Your task to perform on an android device: What's the weather going to be this weekend? Image 0: 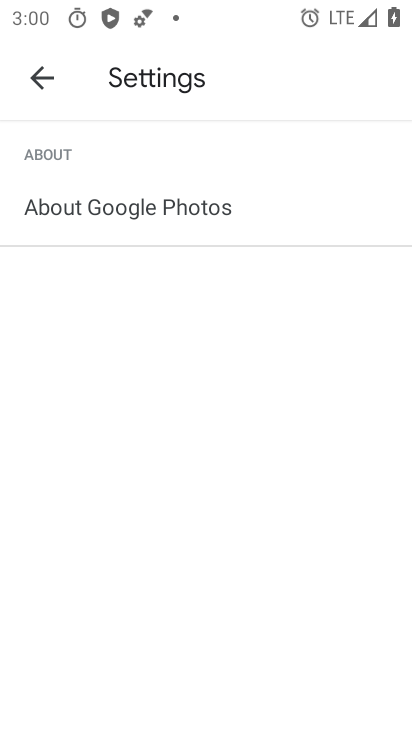
Step 0: press home button
Your task to perform on an android device: What's the weather going to be this weekend? Image 1: 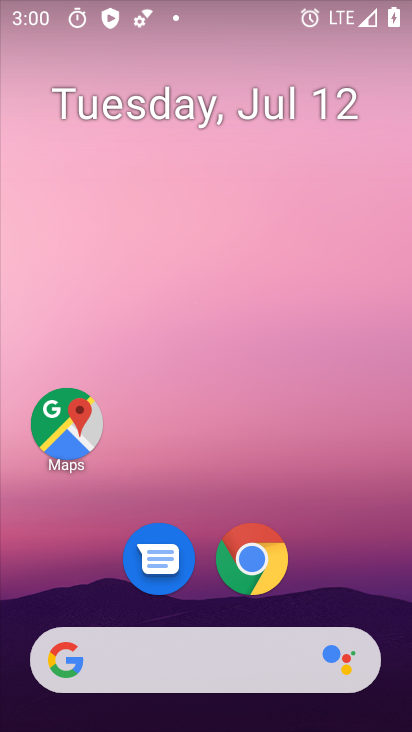
Step 1: click (214, 657)
Your task to perform on an android device: What's the weather going to be this weekend? Image 2: 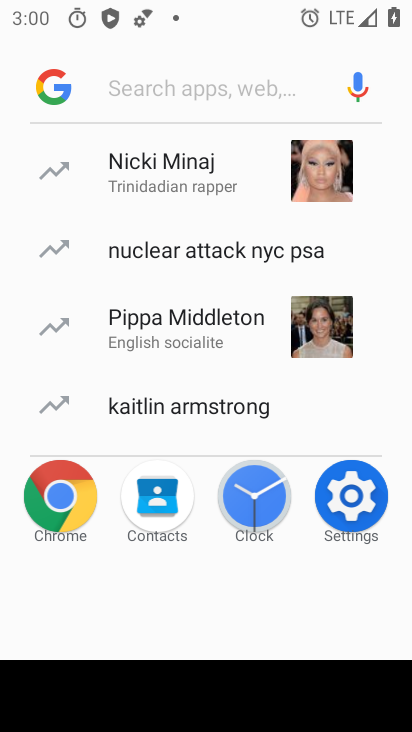
Step 2: type "weather"
Your task to perform on an android device: What's the weather going to be this weekend? Image 3: 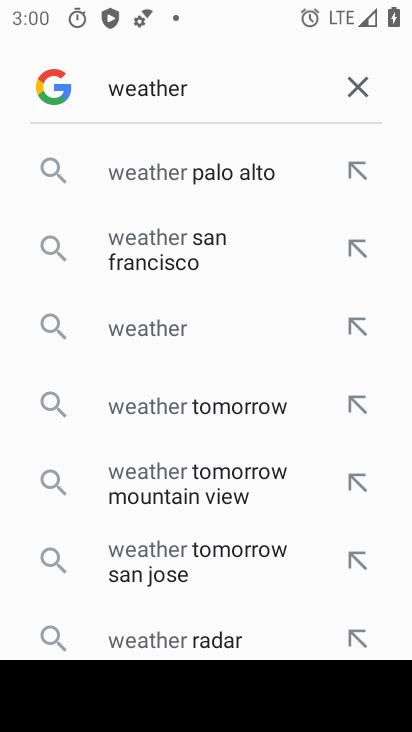
Step 3: click (200, 346)
Your task to perform on an android device: What's the weather going to be this weekend? Image 4: 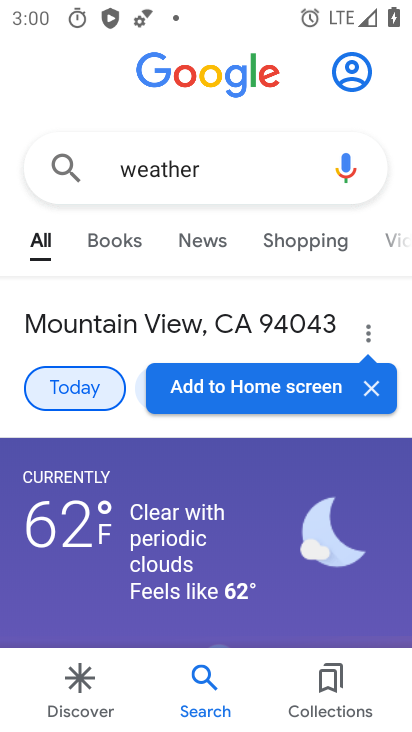
Step 4: click (371, 392)
Your task to perform on an android device: What's the weather going to be this weekend? Image 5: 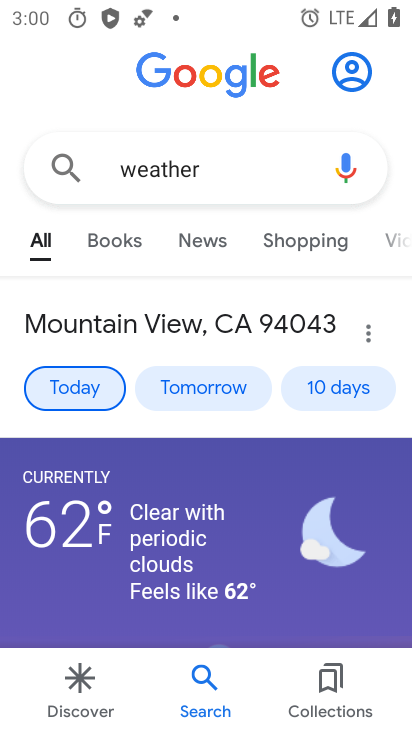
Step 5: click (327, 394)
Your task to perform on an android device: What's the weather going to be this weekend? Image 6: 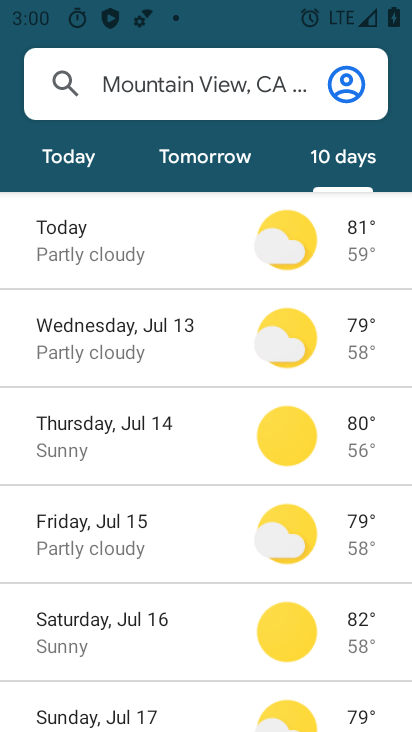
Step 6: drag from (207, 578) to (237, 323)
Your task to perform on an android device: What's the weather going to be this weekend? Image 7: 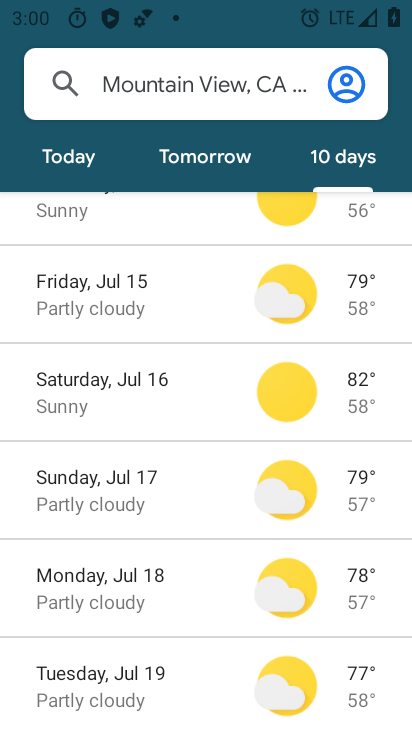
Step 7: click (219, 374)
Your task to perform on an android device: What's the weather going to be this weekend? Image 8: 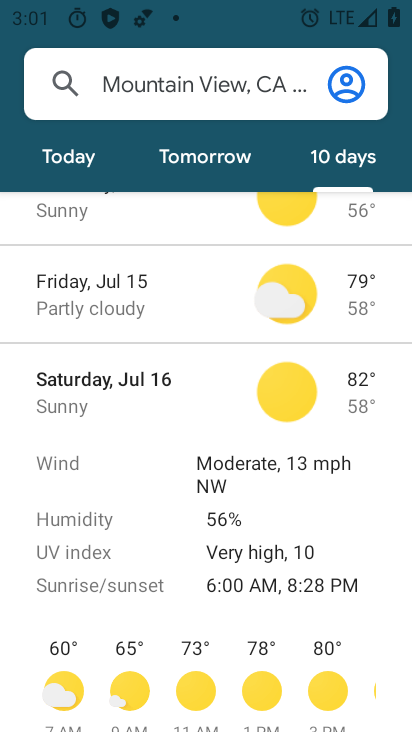
Step 8: task complete